Your task to perform on an android device: turn off priority inbox in the gmail app Image 0: 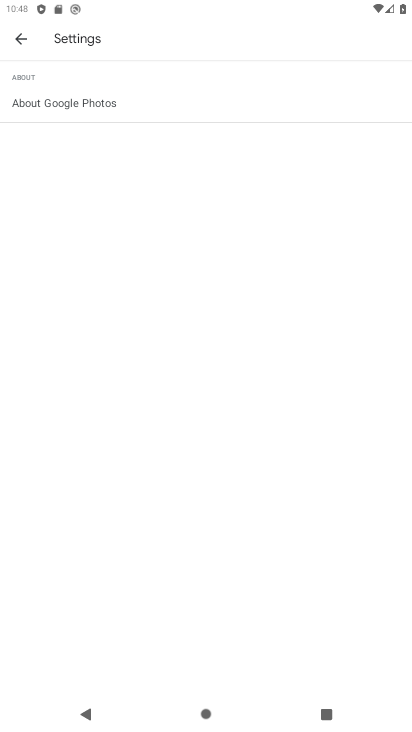
Step 0: press home button
Your task to perform on an android device: turn off priority inbox in the gmail app Image 1: 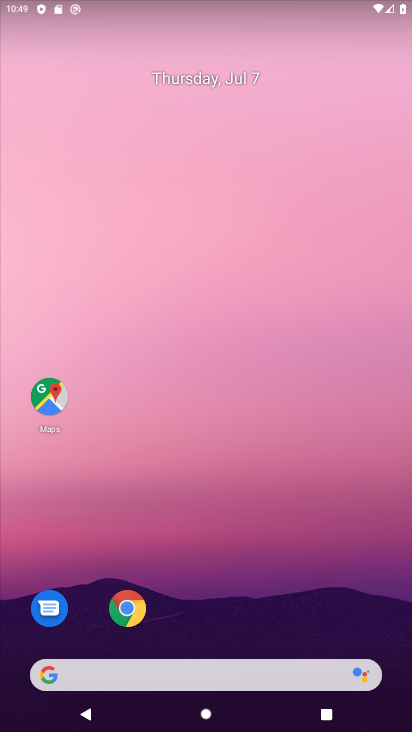
Step 1: drag from (23, 695) to (398, 117)
Your task to perform on an android device: turn off priority inbox in the gmail app Image 2: 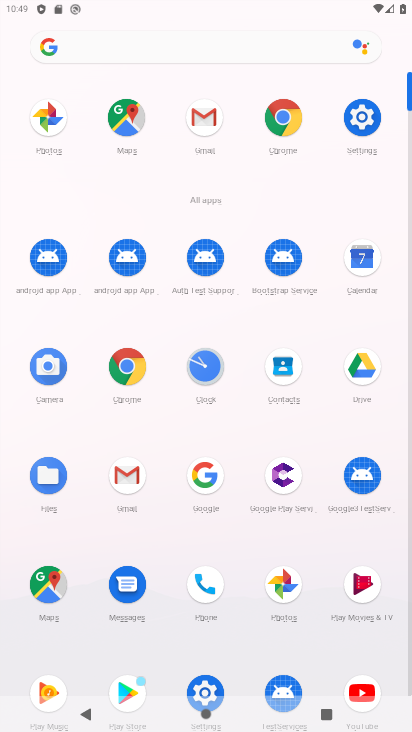
Step 2: click (132, 475)
Your task to perform on an android device: turn off priority inbox in the gmail app Image 3: 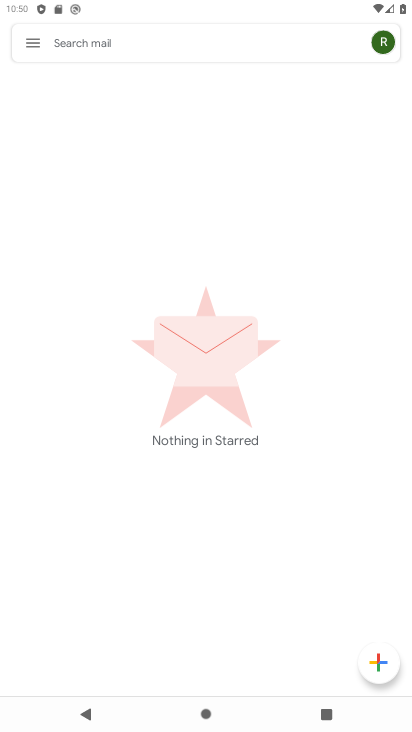
Step 3: click (33, 44)
Your task to perform on an android device: turn off priority inbox in the gmail app Image 4: 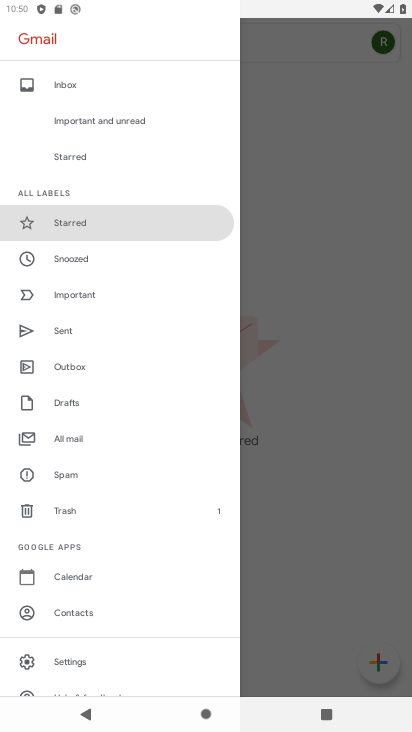
Step 4: click (78, 662)
Your task to perform on an android device: turn off priority inbox in the gmail app Image 5: 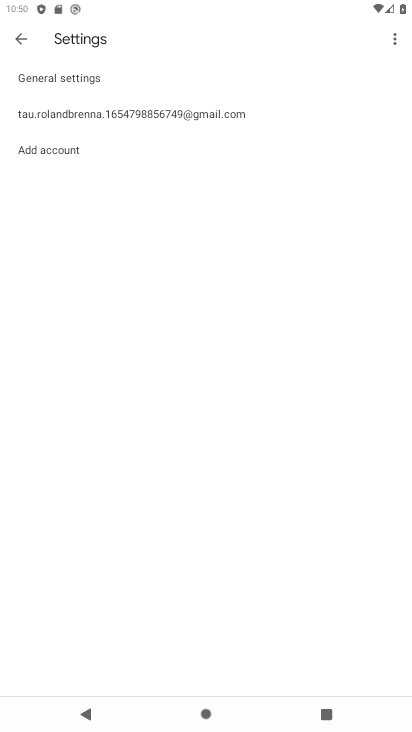
Step 5: click (66, 77)
Your task to perform on an android device: turn off priority inbox in the gmail app Image 6: 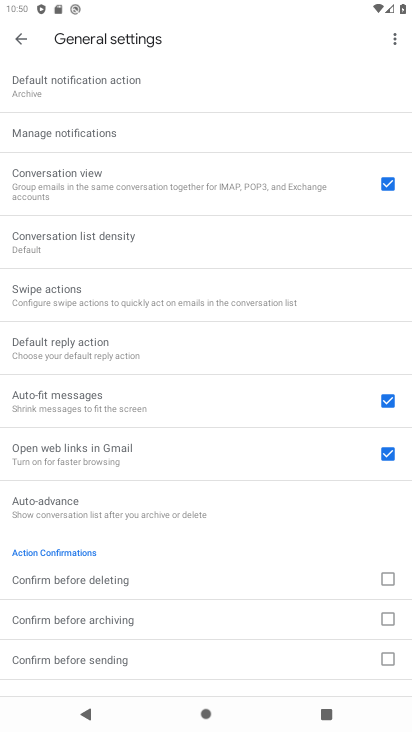
Step 6: task complete